Your task to perform on an android device: Show me popular videos on Youtube Image 0: 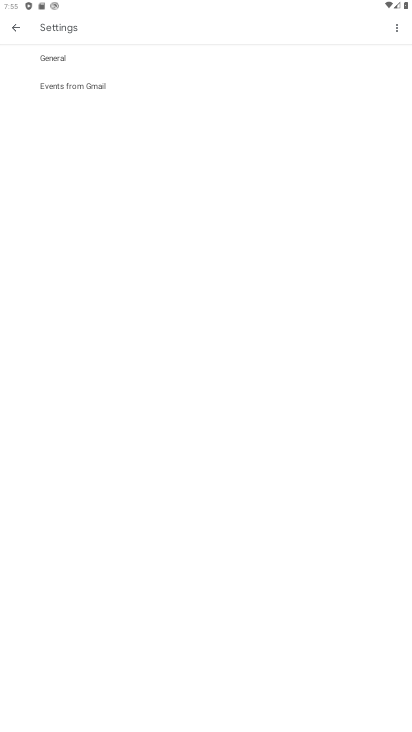
Step 0: press home button
Your task to perform on an android device: Show me popular videos on Youtube Image 1: 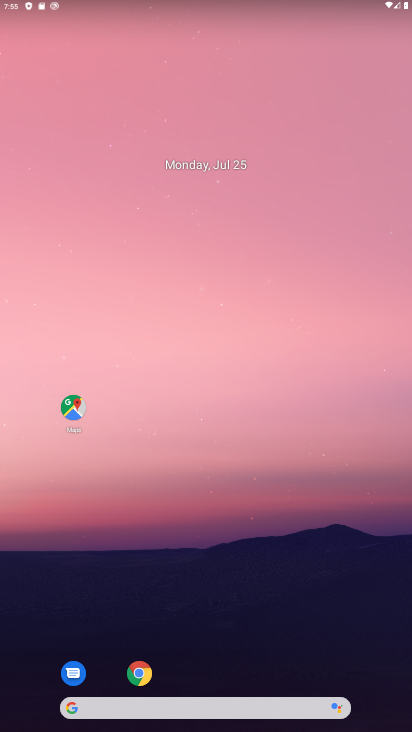
Step 1: drag from (191, 667) to (171, 55)
Your task to perform on an android device: Show me popular videos on Youtube Image 2: 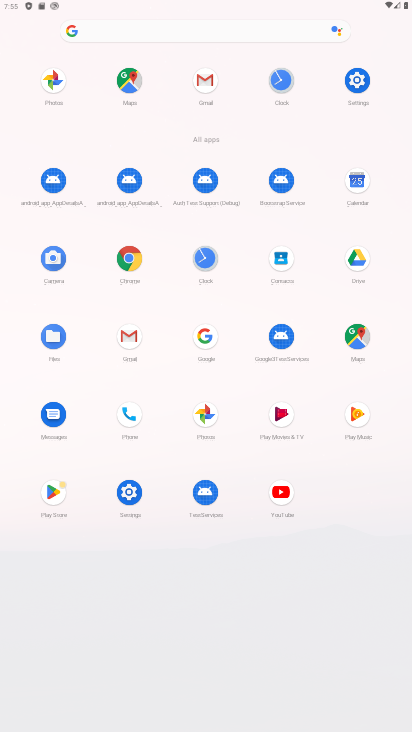
Step 2: click (278, 498)
Your task to perform on an android device: Show me popular videos on Youtube Image 3: 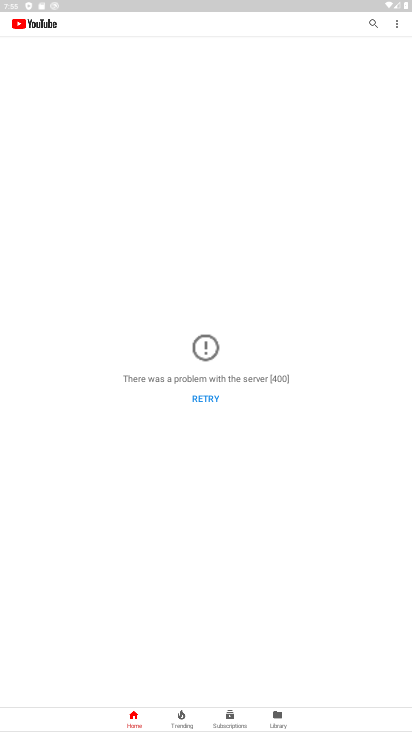
Step 3: task complete